Your task to perform on an android device: read, delete, or share a saved page in the chrome app Image 0: 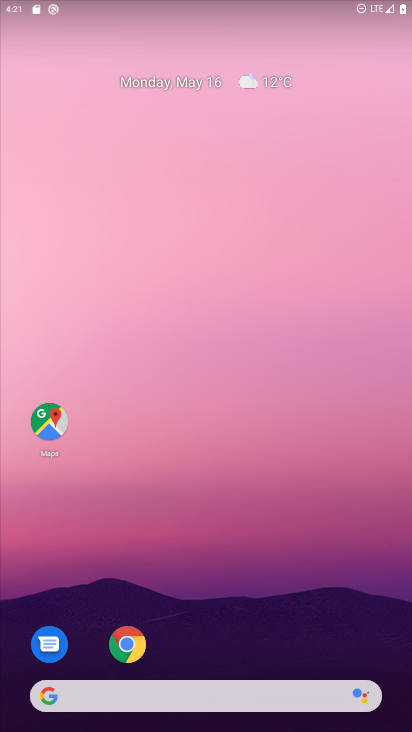
Step 0: click (128, 643)
Your task to perform on an android device: read, delete, or share a saved page in the chrome app Image 1: 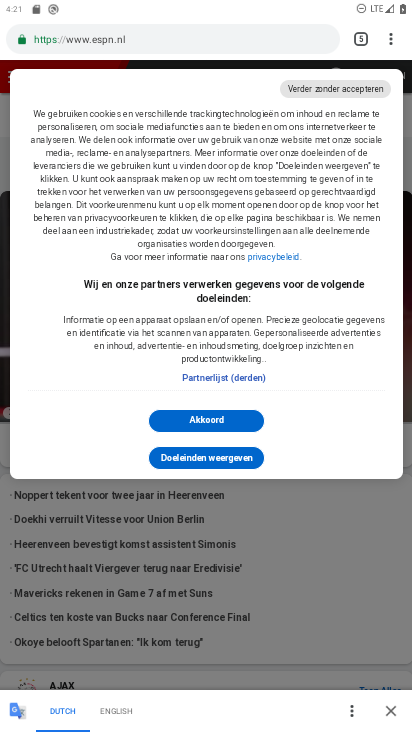
Step 1: click (392, 44)
Your task to perform on an android device: read, delete, or share a saved page in the chrome app Image 2: 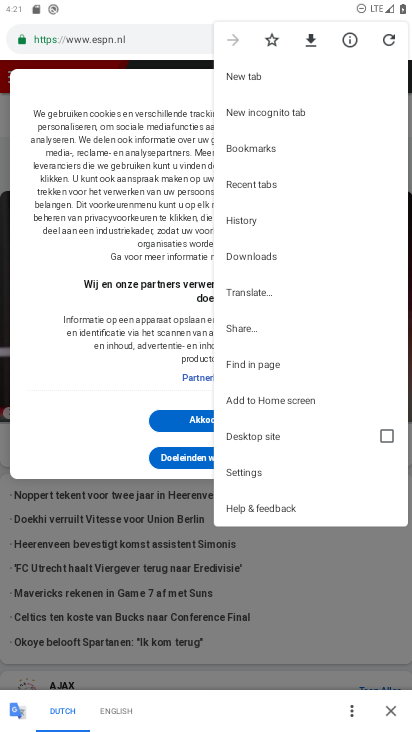
Step 2: click (264, 256)
Your task to perform on an android device: read, delete, or share a saved page in the chrome app Image 3: 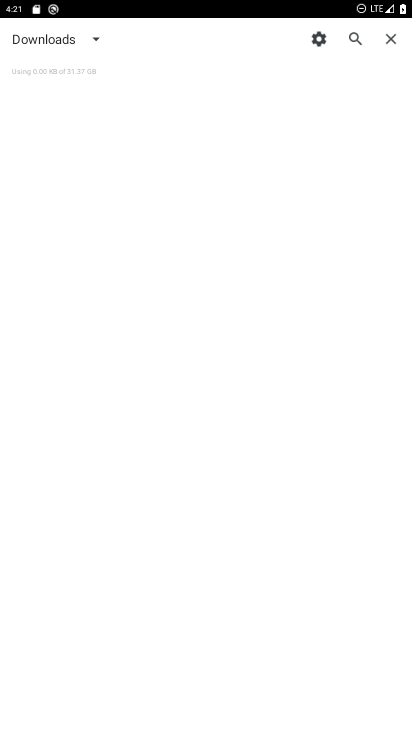
Step 3: click (82, 38)
Your task to perform on an android device: read, delete, or share a saved page in the chrome app Image 4: 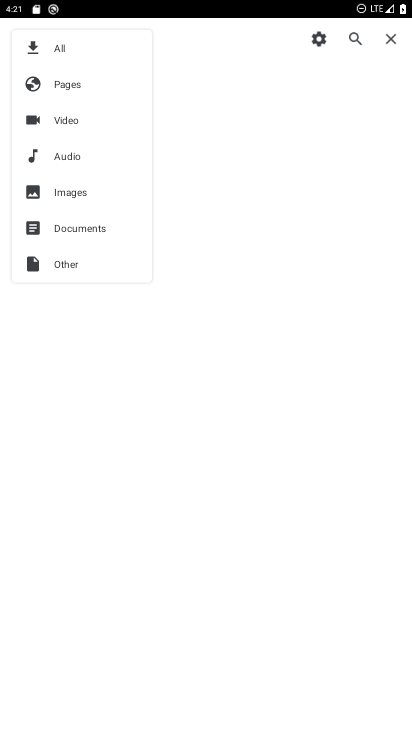
Step 4: click (76, 90)
Your task to perform on an android device: read, delete, or share a saved page in the chrome app Image 5: 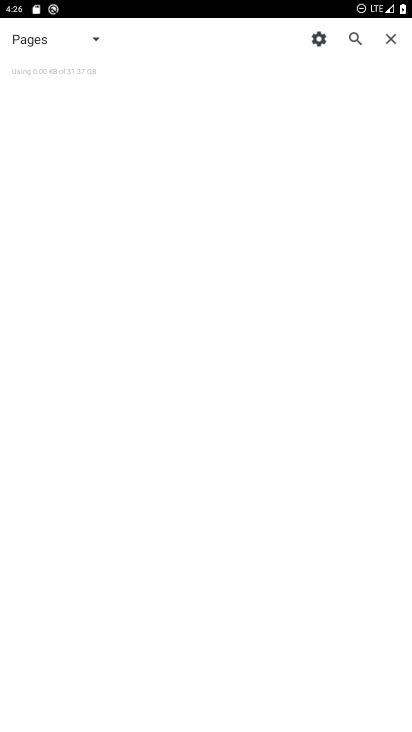
Step 5: task complete